Your task to perform on an android device: Open Google Image 0: 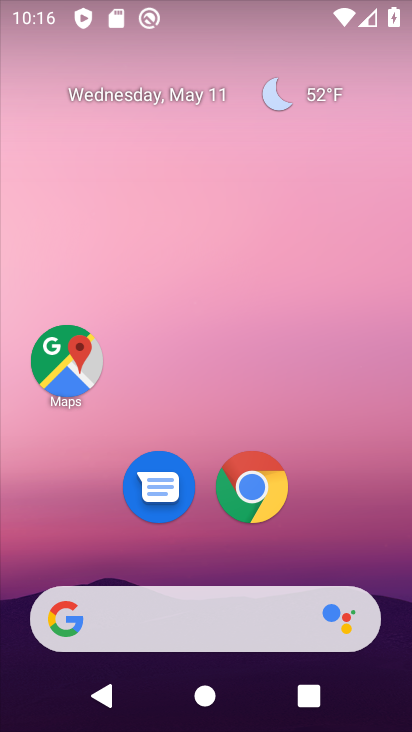
Step 0: drag from (330, 501) to (297, 21)
Your task to perform on an android device: Open Google Image 1: 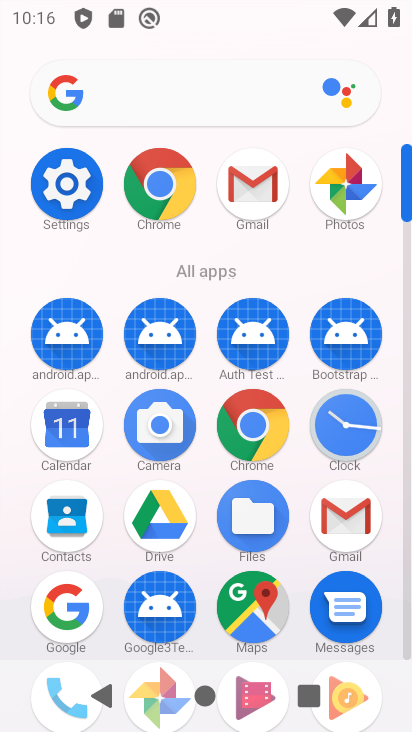
Step 1: click (160, 182)
Your task to perform on an android device: Open Google Image 2: 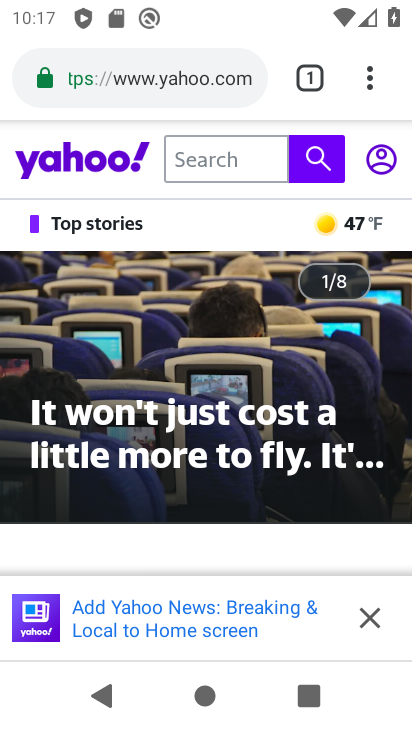
Step 2: click (170, 54)
Your task to perform on an android device: Open Google Image 3: 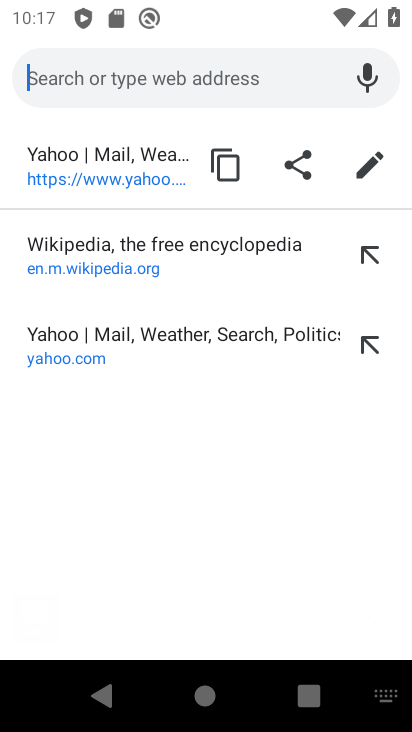
Step 3: type "Google"
Your task to perform on an android device: Open Google Image 4: 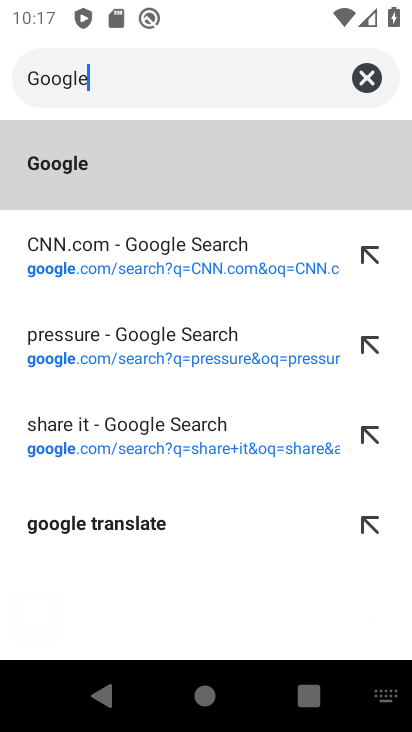
Step 4: type ""
Your task to perform on an android device: Open Google Image 5: 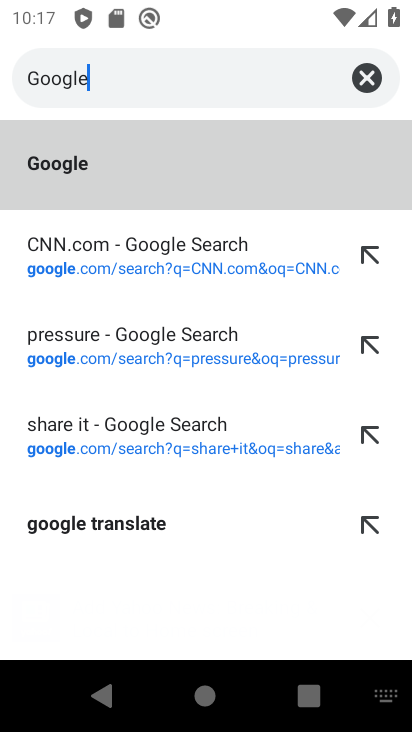
Step 5: click (140, 165)
Your task to perform on an android device: Open Google Image 6: 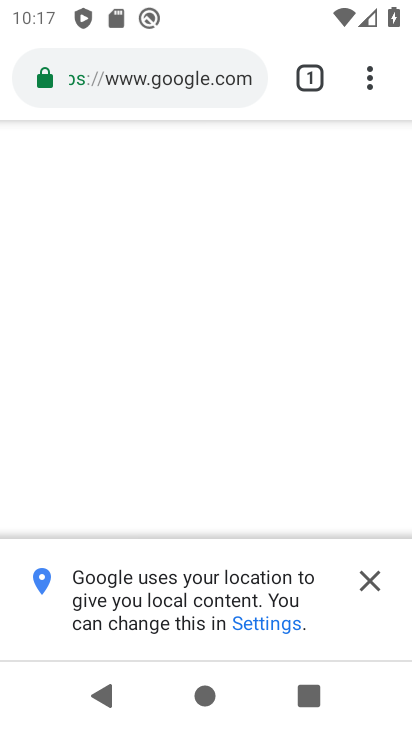
Step 6: click (364, 584)
Your task to perform on an android device: Open Google Image 7: 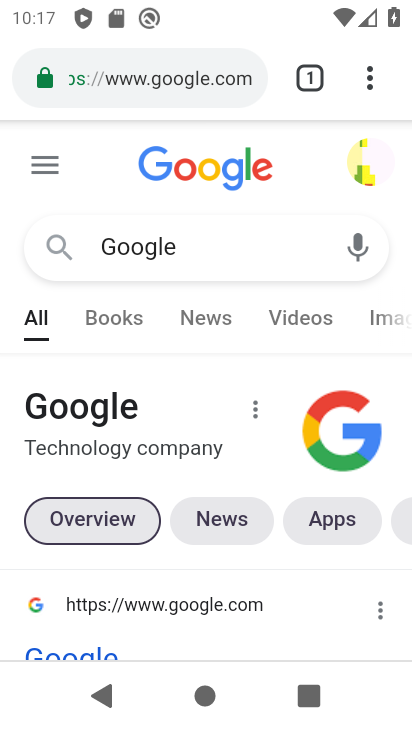
Step 7: drag from (224, 558) to (235, 176)
Your task to perform on an android device: Open Google Image 8: 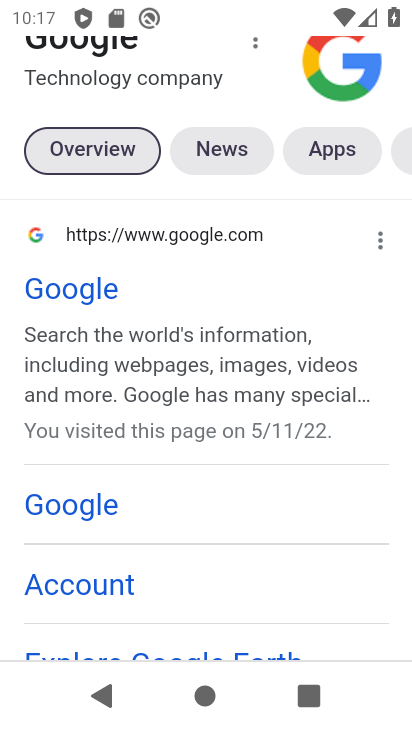
Step 8: click (79, 279)
Your task to perform on an android device: Open Google Image 9: 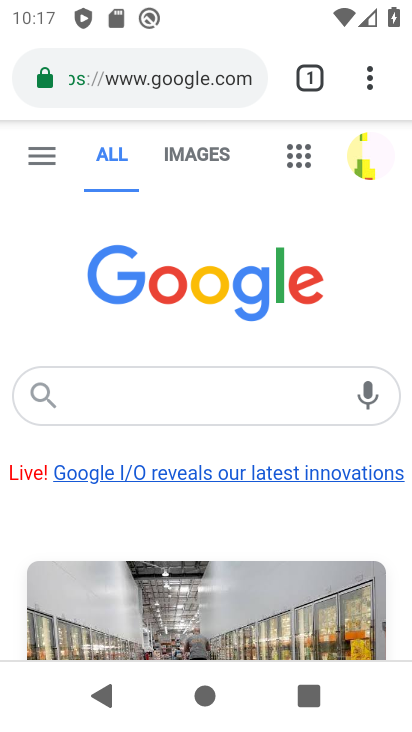
Step 9: task complete